Your task to perform on an android device: add a contact Image 0: 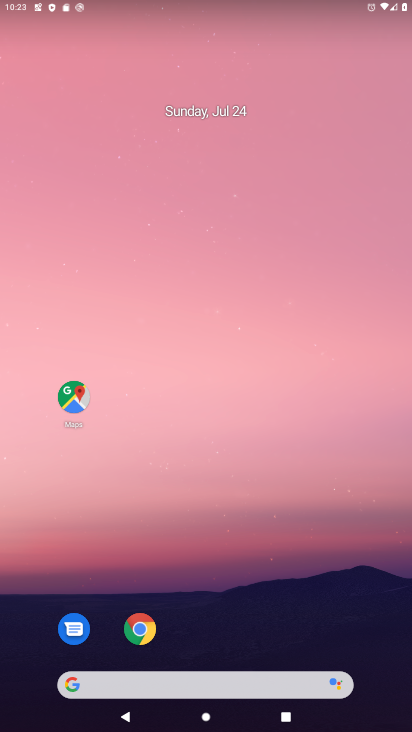
Step 0: drag from (192, 635) to (236, 174)
Your task to perform on an android device: add a contact Image 1: 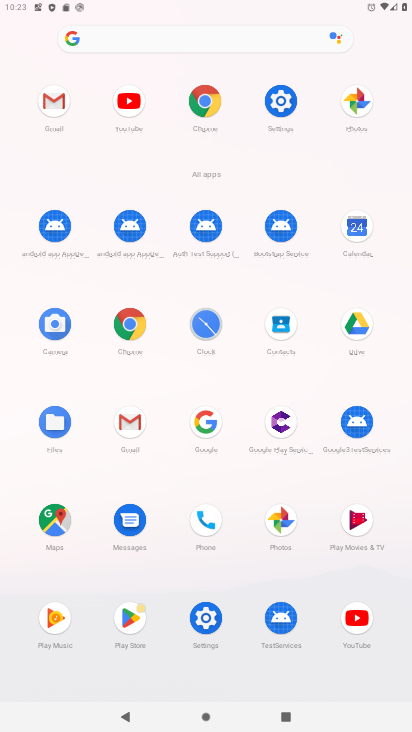
Step 1: click (280, 332)
Your task to perform on an android device: add a contact Image 2: 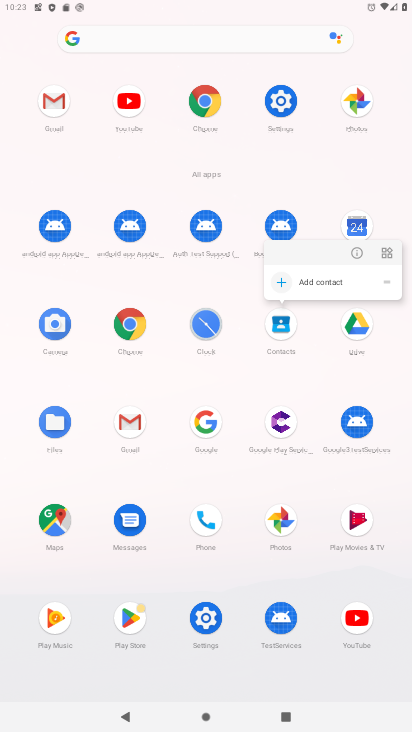
Step 2: click (359, 255)
Your task to perform on an android device: add a contact Image 3: 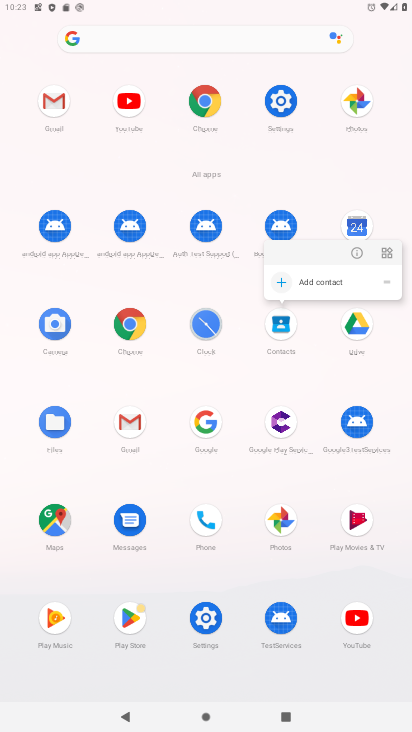
Step 3: click (359, 255)
Your task to perform on an android device: add a contact Image 4: 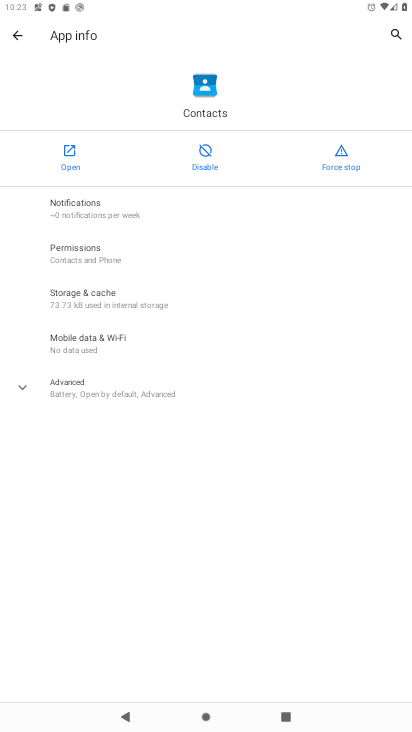
Step 4: click (70, 150)
Your task to perform on an android device: add a contact Image 5: 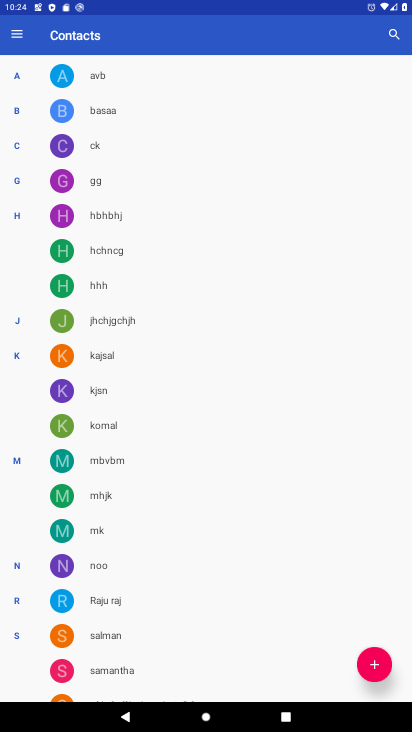
Step 5: click (367, 664)
Your task to perform on an android device: add a contact Image 6: 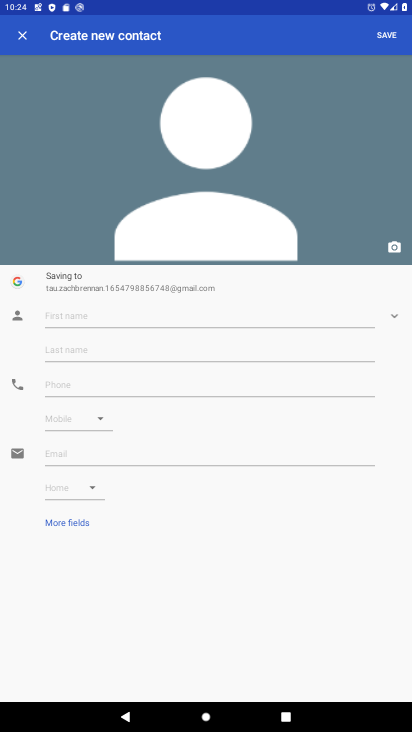
Step 6: click (89, 319)
Your task to perform on an android device: add a contact Image 7: 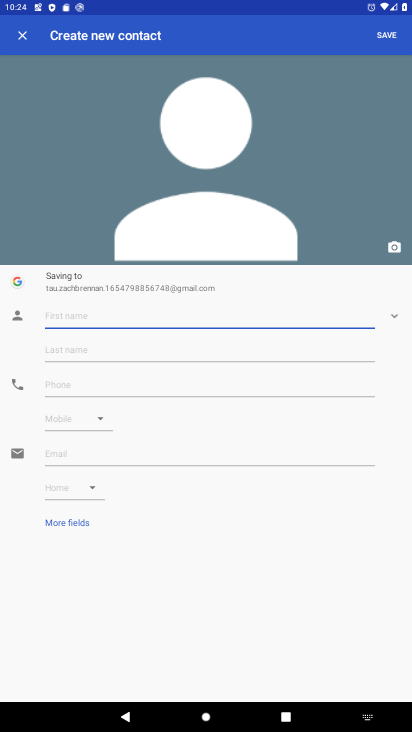
Step 7: type "mmmh"
Your task to perform on an android device: add a contact Image 8: 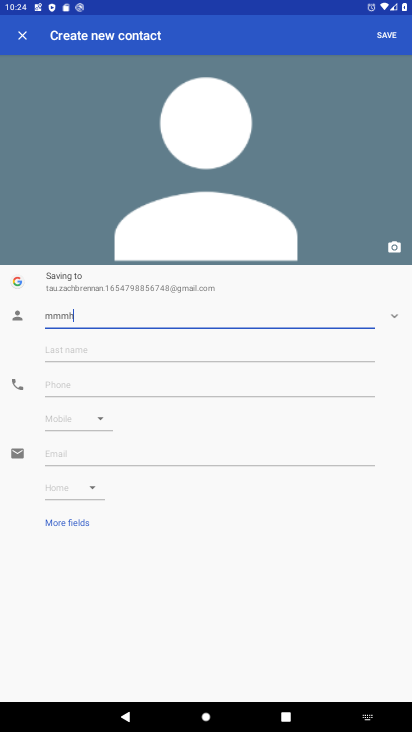
Step 8: click (63, 384)
Your task to perform on an android device: add a contact Image 9: 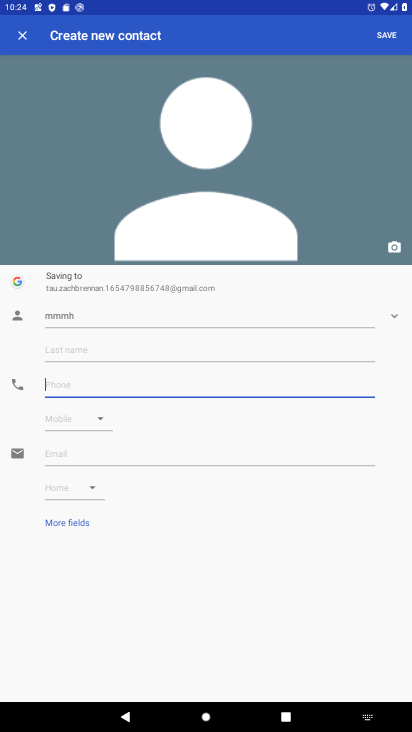
Step 9: type "8768979"
Your task to perform on an android device: add a contact Image 10: 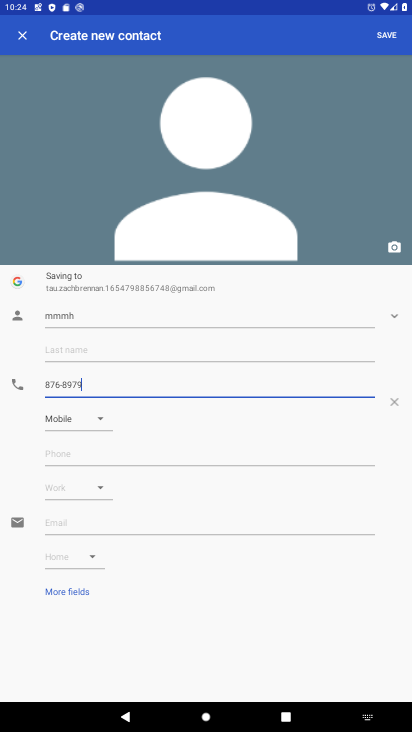
Step 10: click (391, 30)
Your task to perform on an android device: add a contact Image 11: 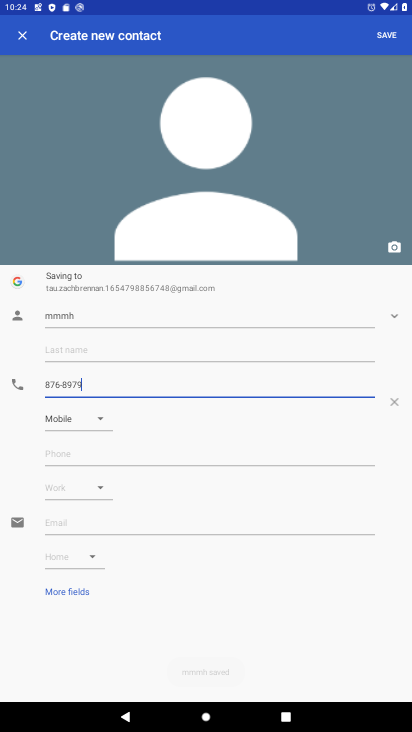
Step 11: task complete